Your task to perform on an android device: turn on showing notifications on the lock screen Image 0: 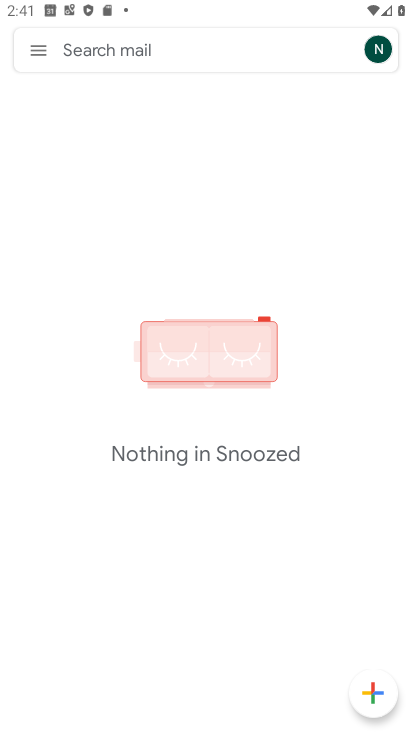
Step 0: press home button
Your task to perform on an android device: turn on showing notifications on the lock screen Image 1: 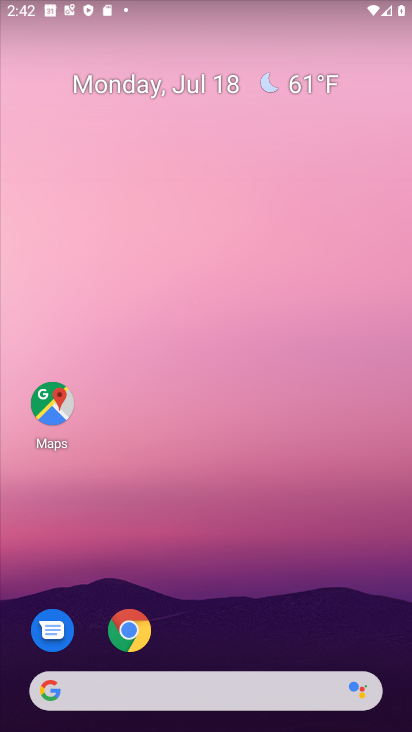
Step 1: drag from (243, 586) to (264, 0)
Your task to perform on an android device: turn on showing notifications on the lock screen Image 2: 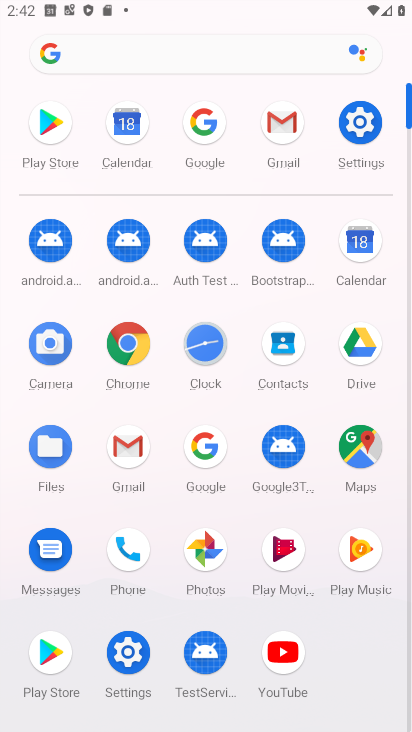
Step 2: click (356, 103)
Your task to perform on an android device: turn on showing notifications on the lock screen Image 3: 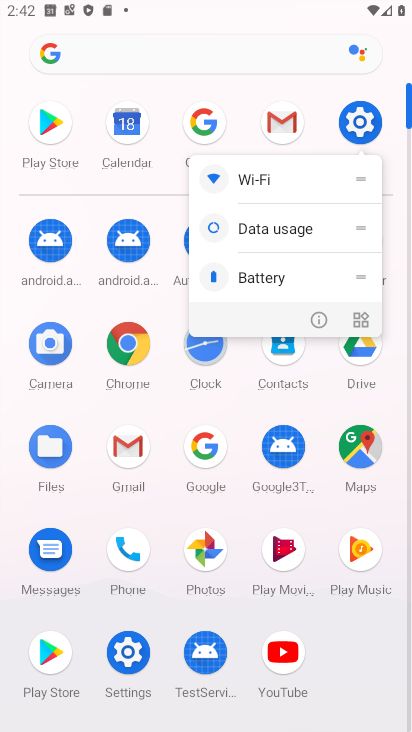
Step 3: click (356, 112)
Your task to perform on an android device: turn on showing notifications on the lock screen Image 4: 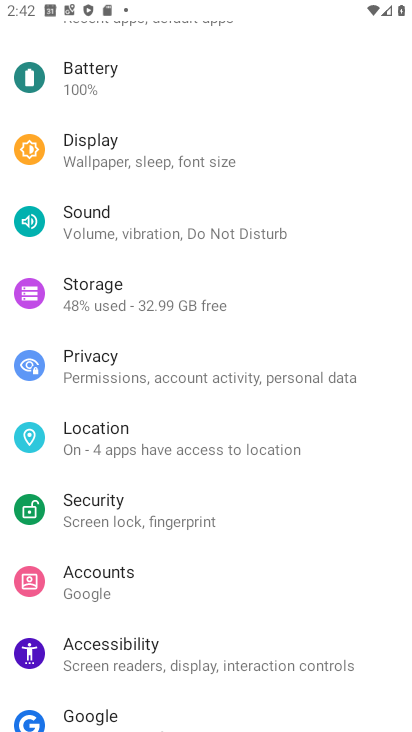
Step 4: drag from (190, 127) to (235, 629)
Your task to perform on an android device: turn on showing notifications on the lock screen Image 5: 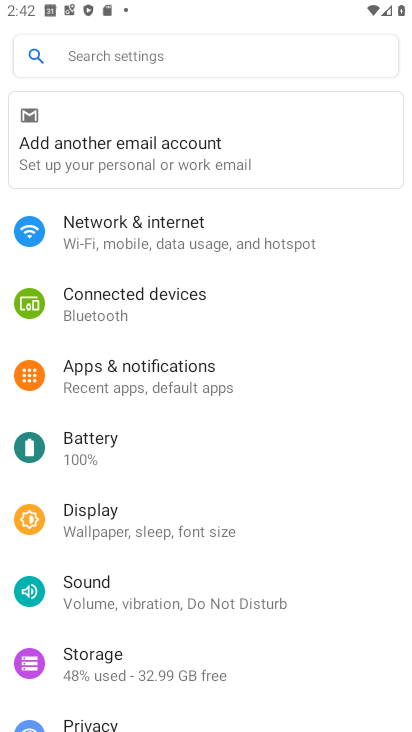
Step 5: click (203, 369)
Your task to perform on an android device: turn on showing notifications on the lock screen Image 6: 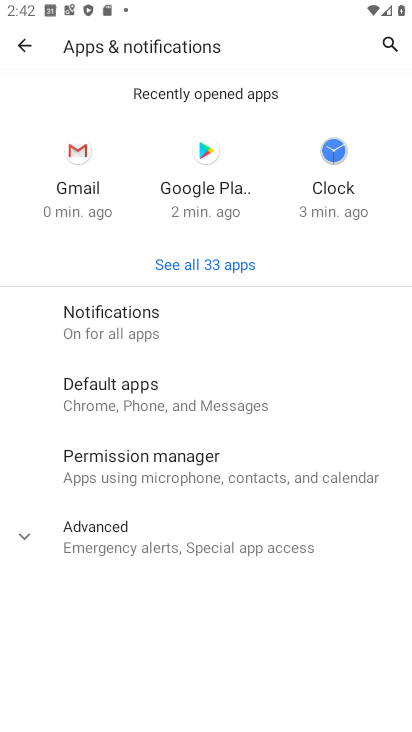
Step 6: click (23, 535)
Your task to perform on an android device: turn on showing notifications on the lock screen Image 7: 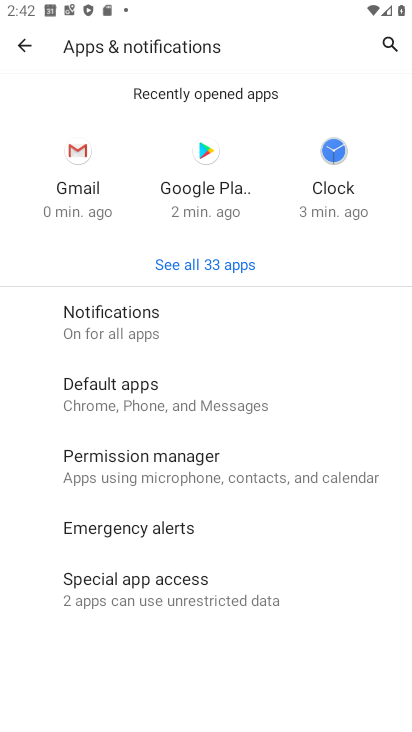
Step 7: click (132, 319)
Your task to perform on an android device: turn on showing notifications on the lock screen Image 8: 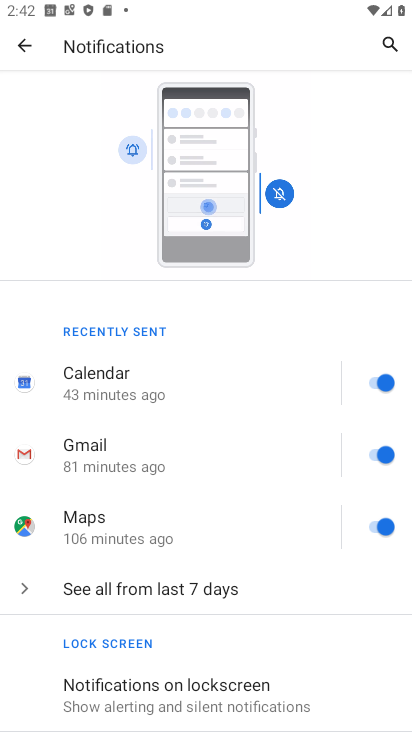
Step 8: drag from (211, 582) to (241, 270)
Your task to perform on an android device: turn on showing notifications on the lock screen Image 9: 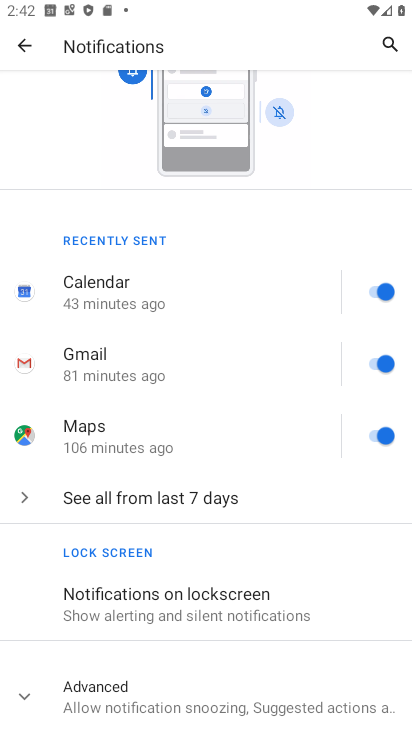
Step 9: click (206, 597)
Your task to perform on an android device: turn on showing notifications on the lock screen Image 10: 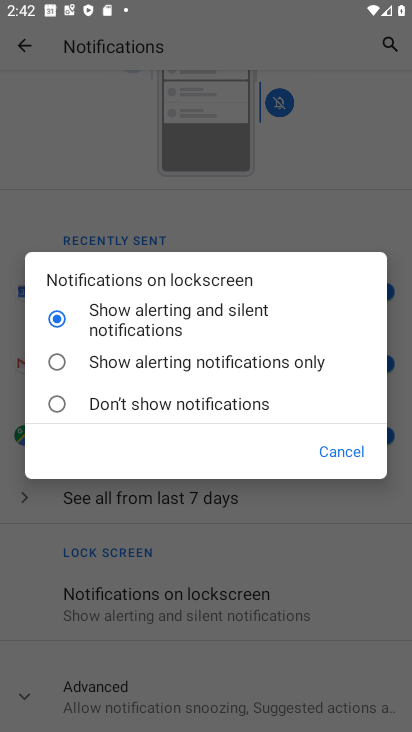
Step 10: click (338, 448)
Your task to perform on an android device: turn on showing notifications on the lock screen Image 11: 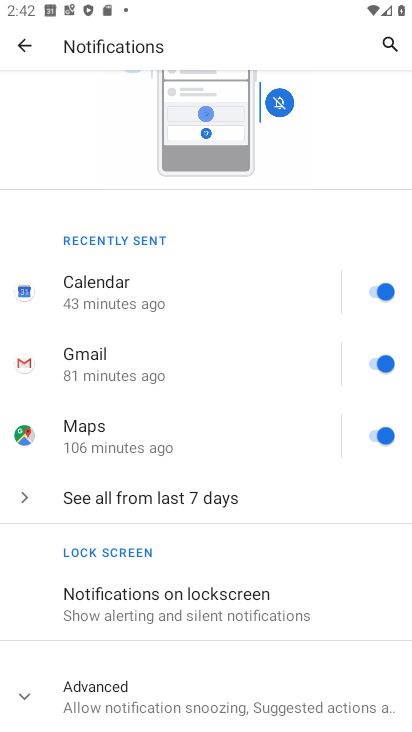
Step 11: task complete